Your task to perform on an android device: check battery use Image 0: 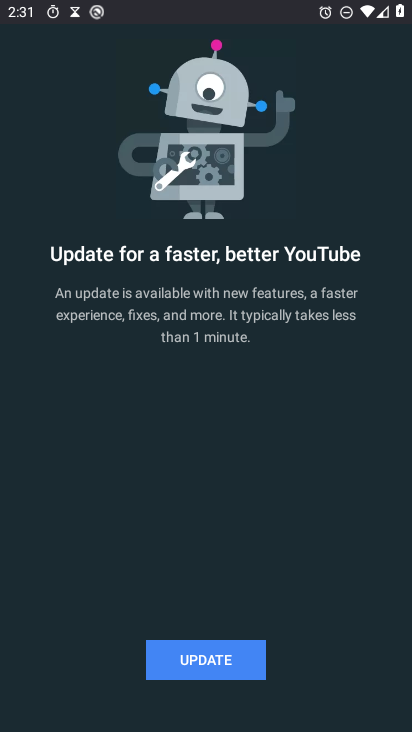
Step 0: press home button
Your task to perform on an android device: check battery use Image 1: 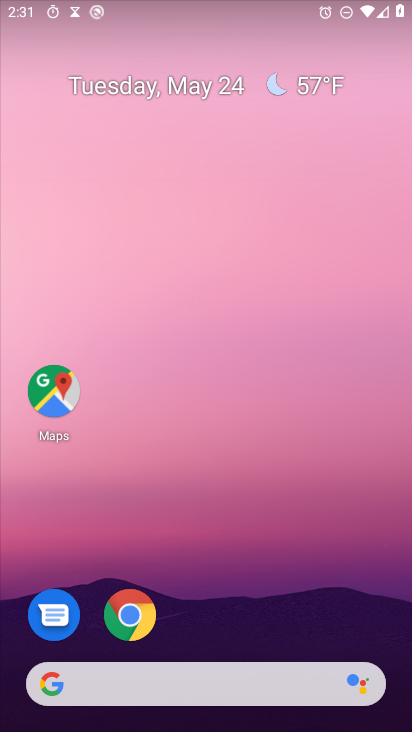
Step 1: drag from (189, 604) to (186, 181)
Your task to perform on an android device: check battery use Image 2: 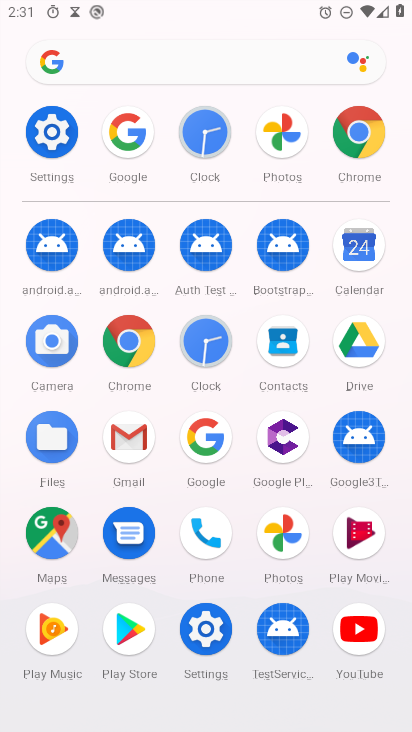
Step 2: click (48, 139)
Your task to perform on an android device: check battery use Image 3: 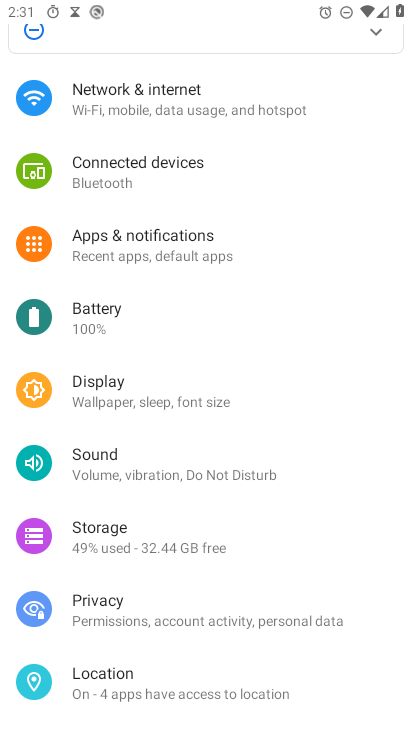
Step 3: click (117, 312)
Your task to perform on an android device: check battery use Image 4: 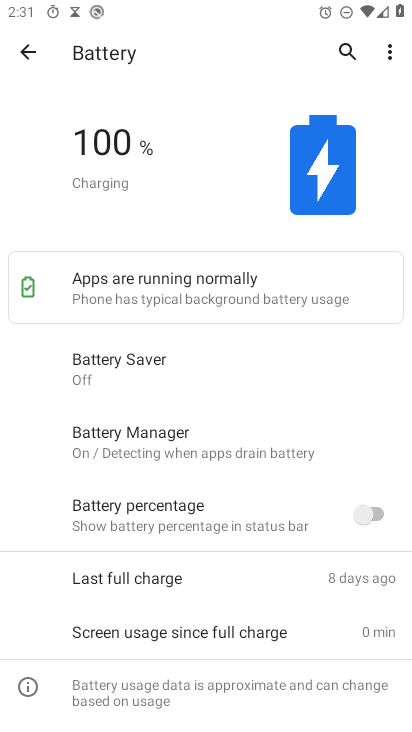
Step 4: task complete